Your task to perform on an android device: Open Maps and search for coffee Image 0: 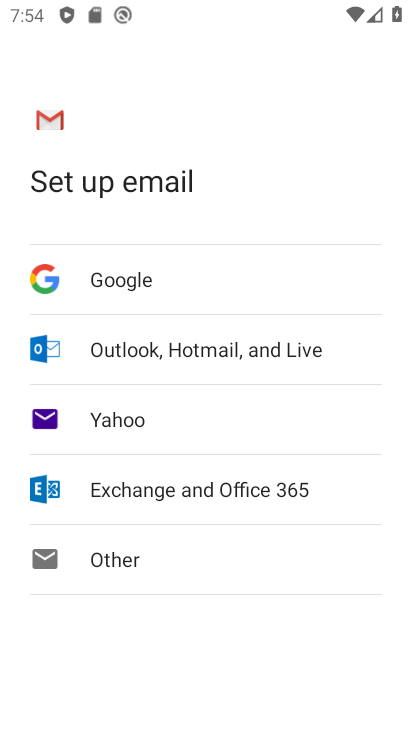
Step 0: press home button
Your task to perform on an android device: Open Maps and search for coffee Image 1: 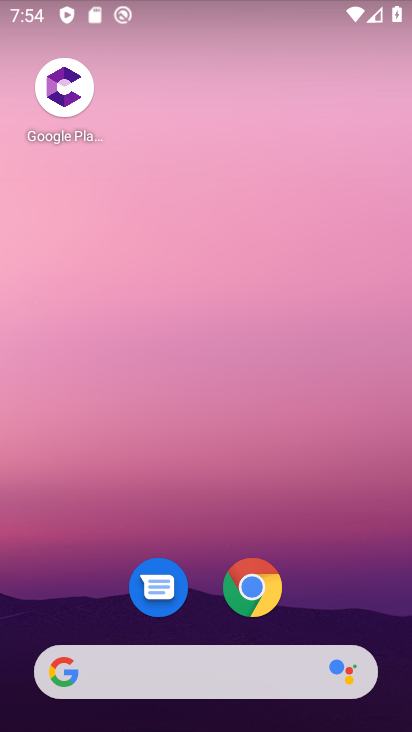
Step 1: drag from (201, 619) to (240, 150)
Your task to perform on an android device: Open Maps and search for coffee Image 2: 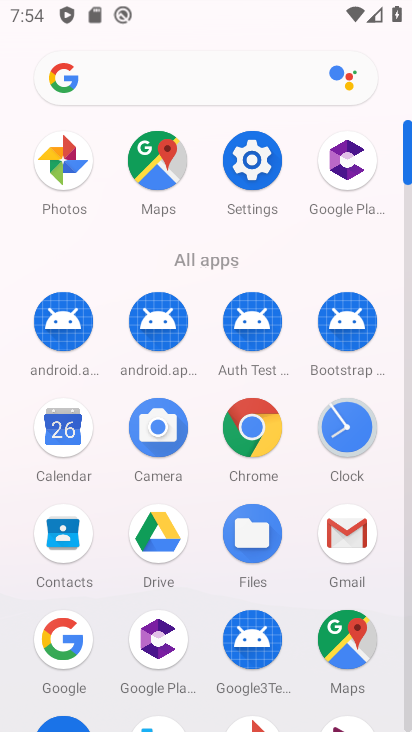
Step 2: click (162, 187)
Your task to perform on an android device: Open Maps and search for coffee Image 3: 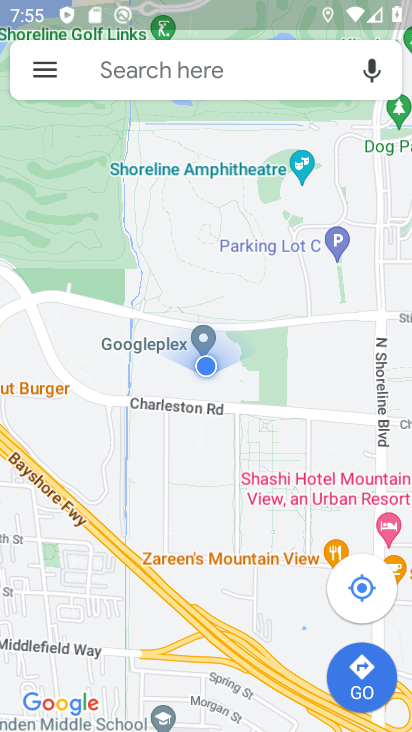
Step 3: click (331, 65)
Your task to perform on an android device: Open Maps and search for coffee Image 4: 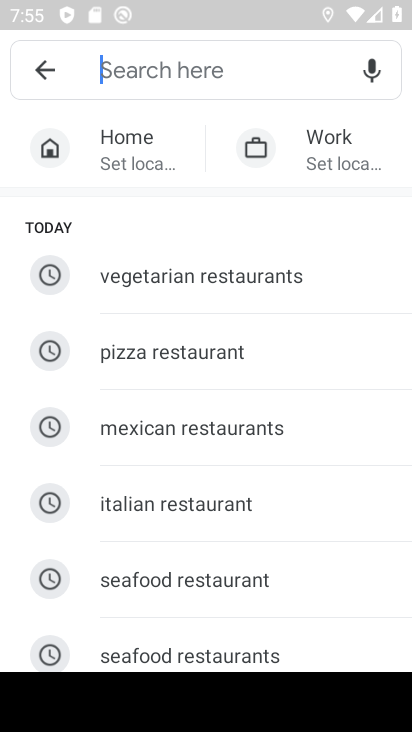
Step 4: type "coffee"
Your task to perform on an android device: Open Maps and search for coffee Image 5: 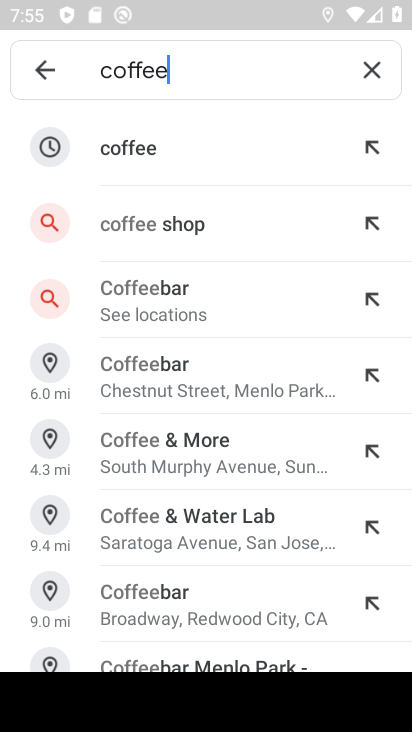
Step 5: click (156, 152)
Your task to perform on an android device: Open Maps and search for coffee Image 6: 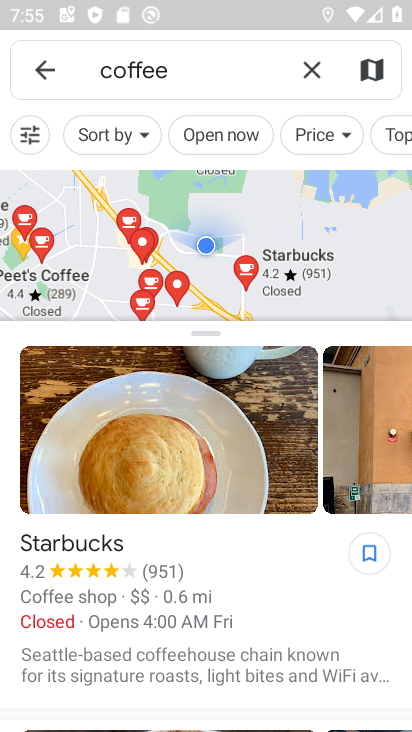
Step 6: task complete